Your task to perform on an android device: change your default location settings in chrome Image 0: 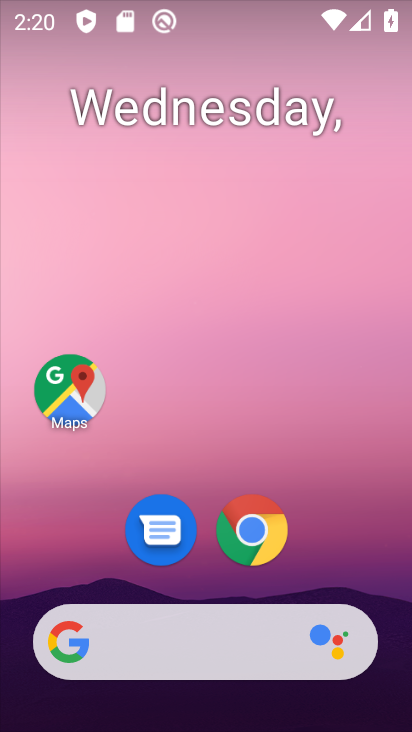
Step 0: drag from (179, 645) to (209, 129)
Your task to perform on an android device: change your default location settings in chrome Image 1: 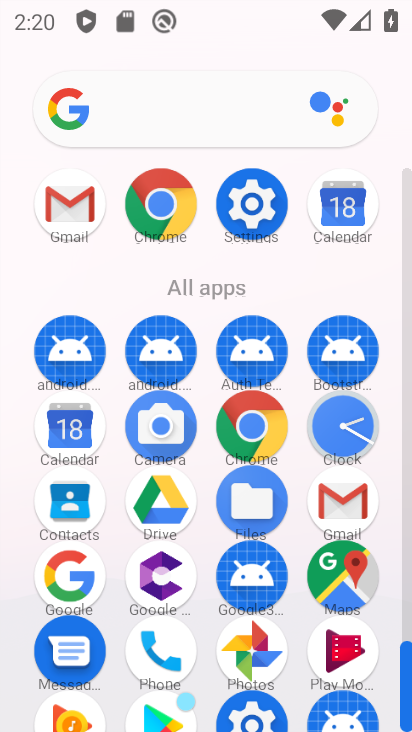
Step 1: click (178, 194)
Your task to perform on an android device: change your default location settings in chrome Image 2: 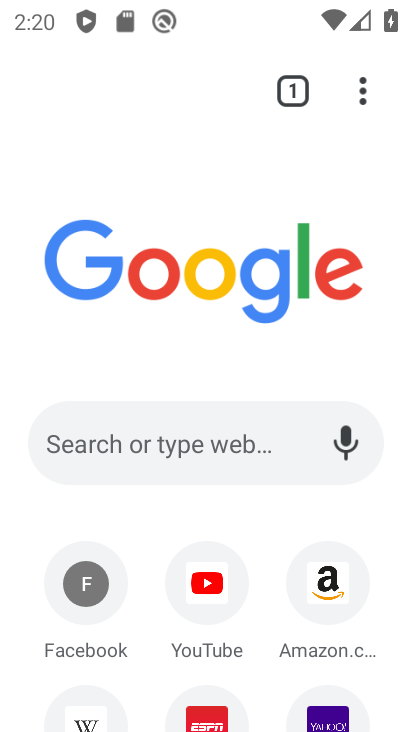
Step 2: click (365, 104)
Your task to perform on an android device: change your default location settings in chrome Image 3: 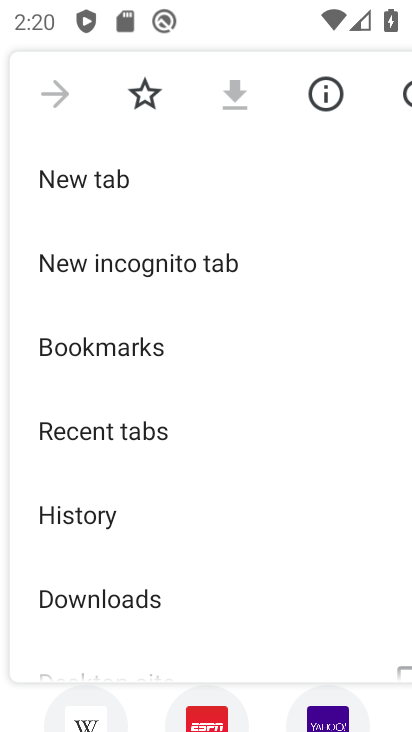
Step 3: drag from (155, 527) to (148, 73)
Your task to perform on an android device: change your default location settings in chrome Image 4: 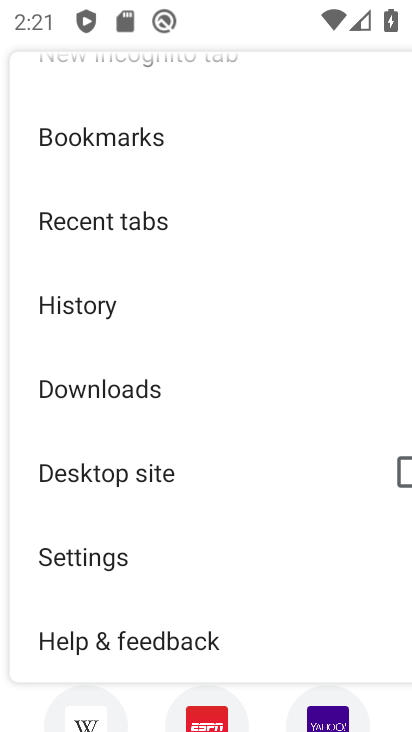
Step 4: click (108, 541)
Your task to perform on an android device: change your default location settings in chrome Image 5: 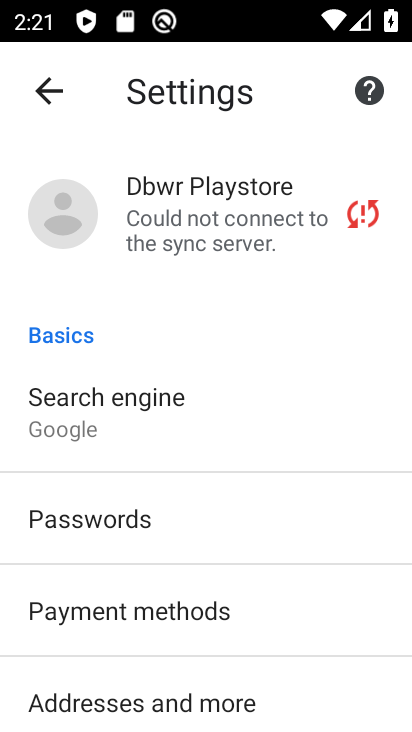
Step 5: drag from (152, 567) to (133, 134)
Your task to perform on an android device: change your default location settings in chrome Image 6: 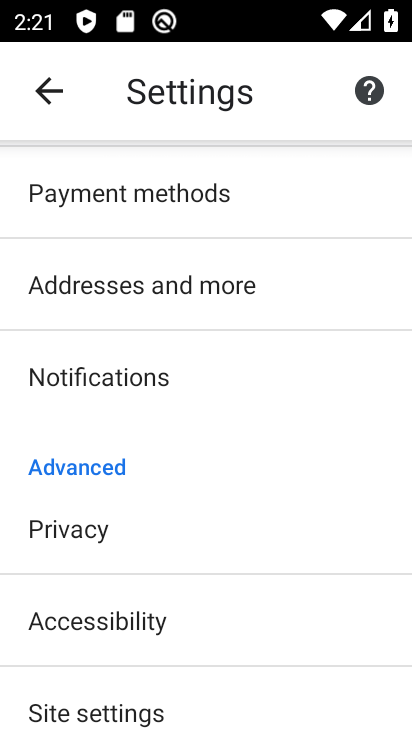
Step 6: click (148, 691)
Your task to perform on an android device: change your default location settings in chrome Image 7: 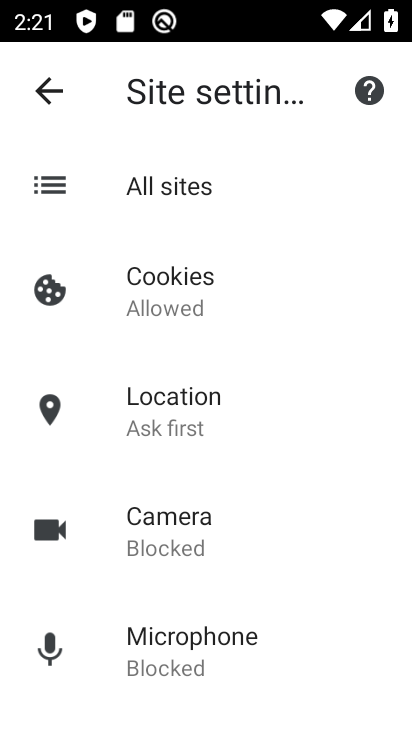
Step 7: click (249, 426)
Your task to perform on an android device: change your default location settings in chrome Image 8: 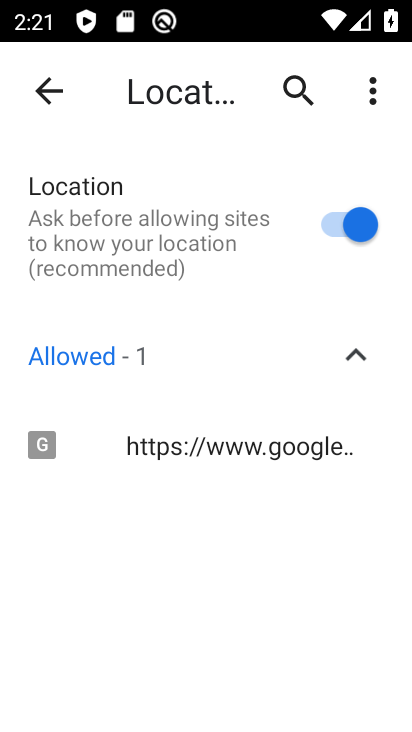
Step 8: click (348, 245)
Your task to perform on an android device: change your default location settings in chrome Image 9: 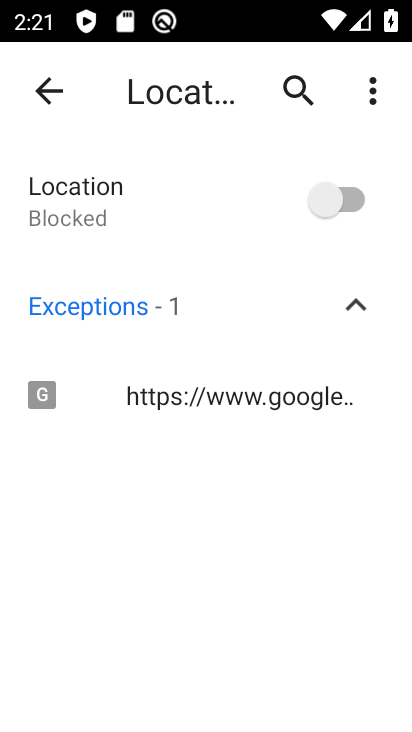
Step 9: task complete